Your task to perform on an android device: turn off javascript in the chrome app Image 0: 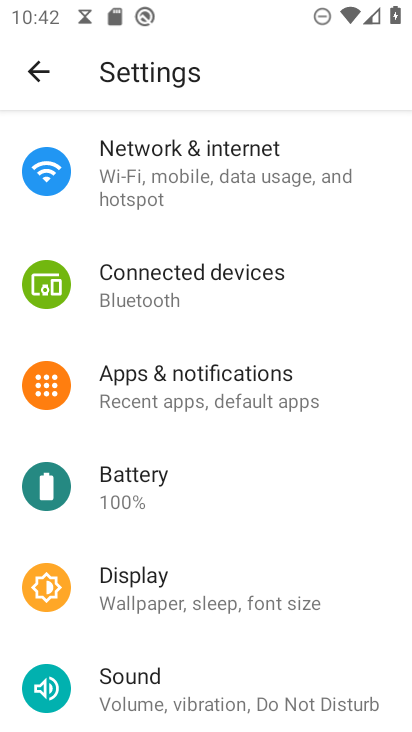
Step 0: press back button
Your task to perform on an android device: turn off javascript in the chrome app Image 1: 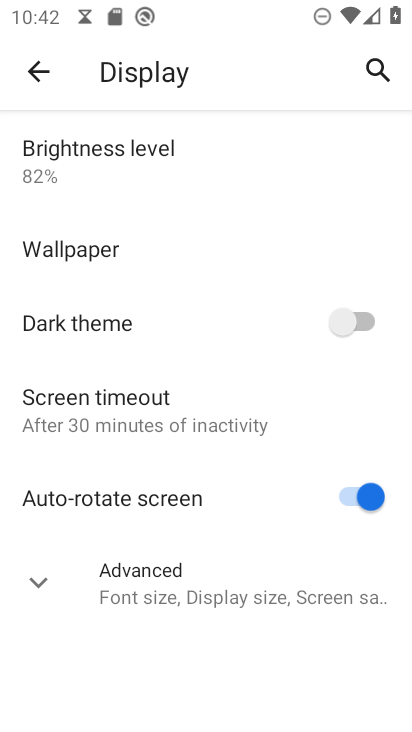
Step 1: press back button
Your task to perform on an android device: turn off javascript in the chrome app Image 2: 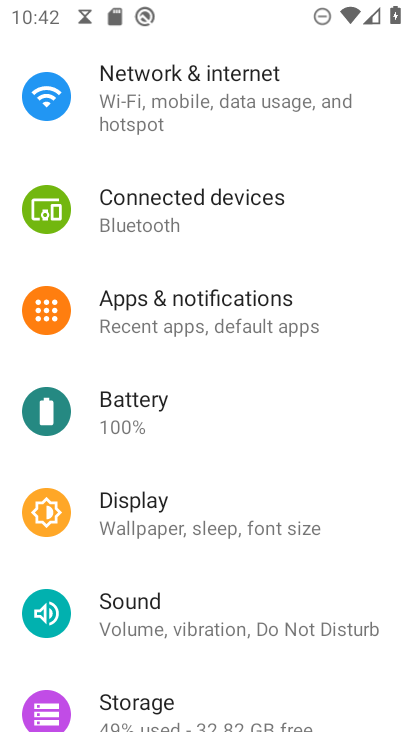
Step 2: press back button
Your task to perform on an android device: turn off javascript in the chrome app Image 3: 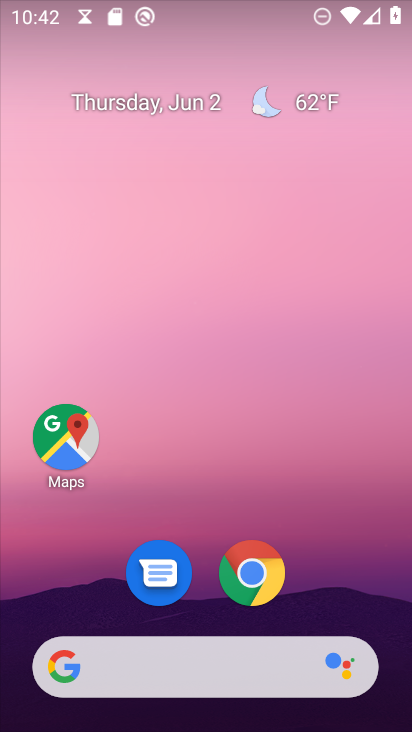
Step 3: click (250, 571)
Your task to perform on an android device: turn off javascript in the chrome app Image 4: 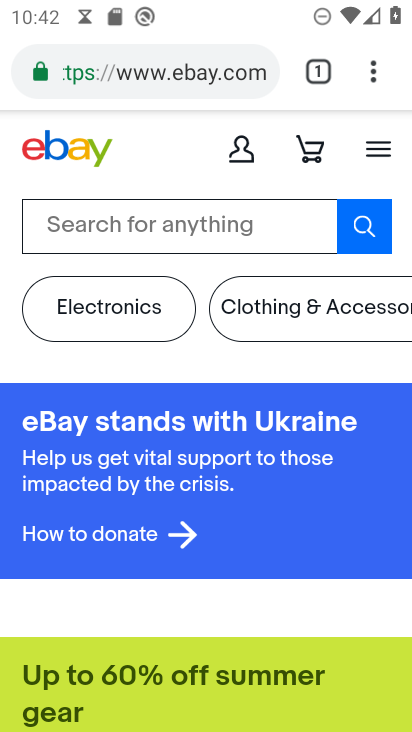
Step 4: click (373, 73)
Your task to perform on an android device: turn off javascript in the chrome app Image 5: 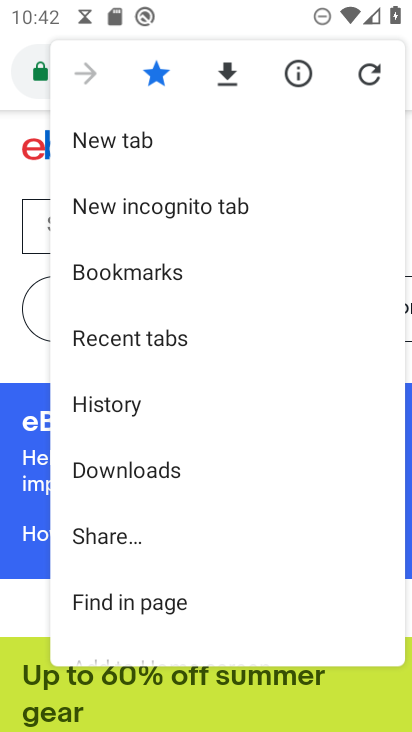
Step 5: drag from (126, 500) to (144, 395)
Your task to perform on an android device: turn off javascript in the chrome app Image 6: 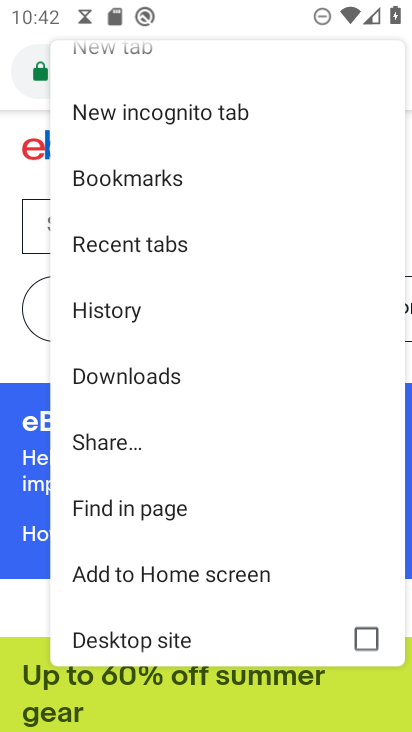
Step 6: drag from (138, 477) to (177, 384)
Your task to perform on an android device: turn off javascript in the chrome app Image 7: 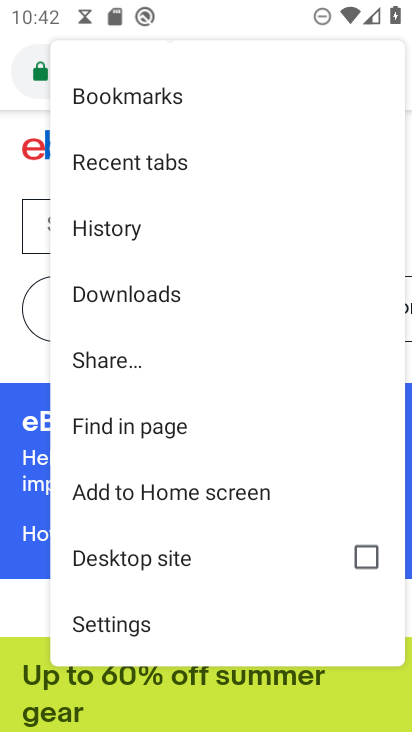
Step 7: drag from (133, 457) to (175, 378)
Your task to perform on an android device: turn off javascript in the chrome app Image 8: 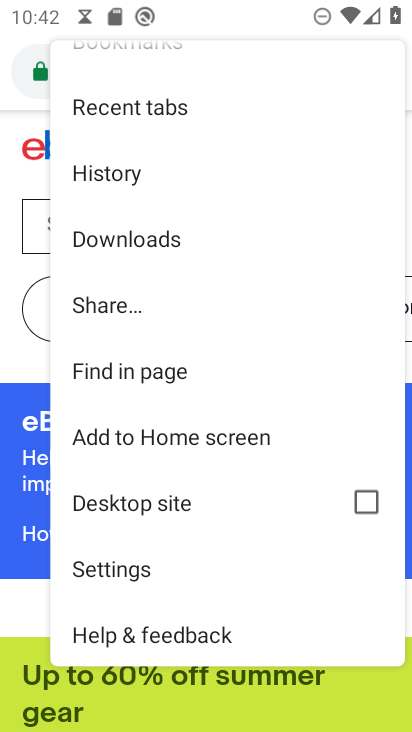
Step 8: drag from (124, 529) to (189, 423)
Your task to perform on an android device: turn off javascript in the chrome app Image 9: 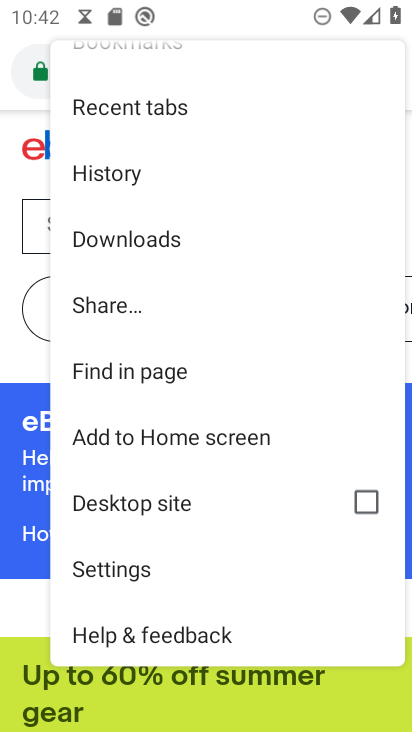
Step 9: click (147, 574)
Your task to perform on an android device: turn off javascript in the chrome app Image 10: 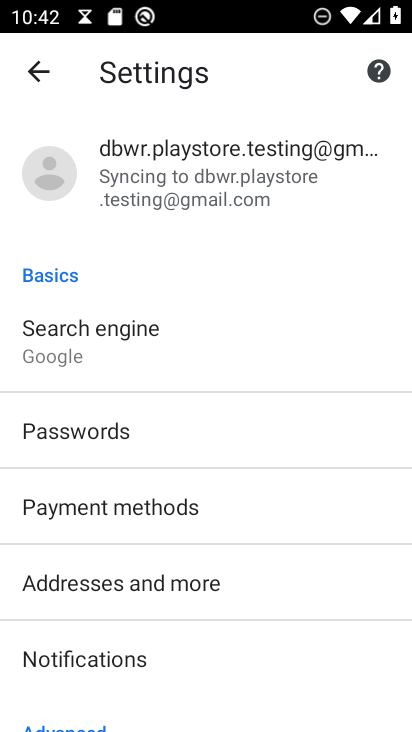
Step 10: drag from (183, 568) to (212, 469)
Your task to perform on an android device: turn off javascript in the chrome app Image 11: 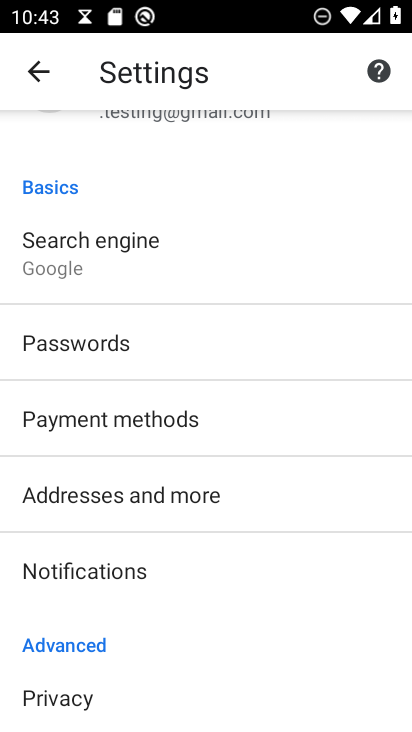
Step 11: drag from (112, 606) to (135, 476)
Your task to perform on an android device: turn off javascript in the chrome app Image 12: 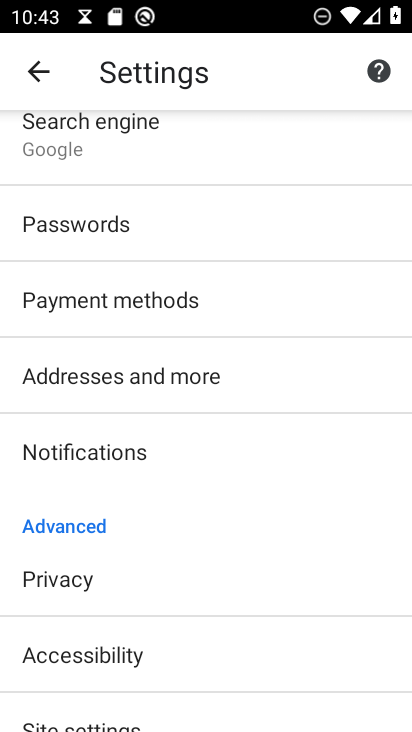
Step 12: drag from (145, 585) to (179, 462)
Your task to perform on an android device: turn off javascript in the chrome app Image 13: 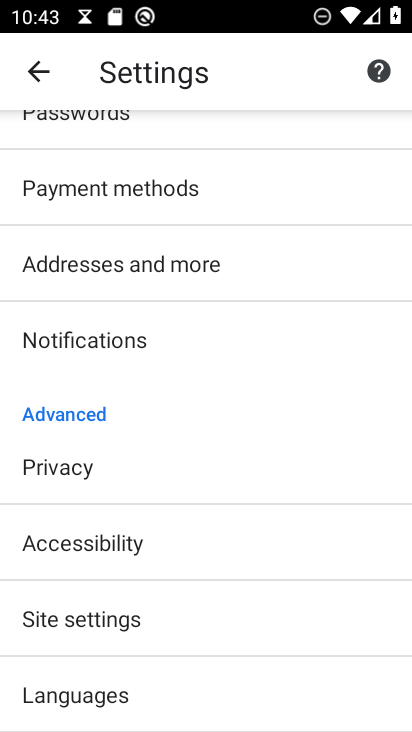
Step 13: drag from (175, 558) to (217, 496)
Your task to perform on an android device: turn off javascript in the chrome app Image 14: 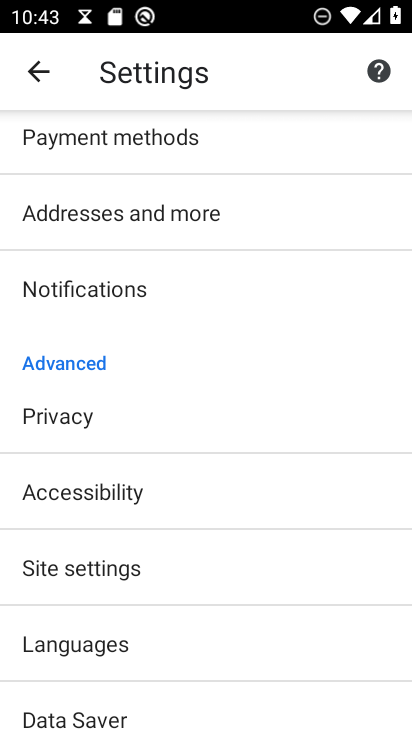
Step 14: drag from (180, 660) to (240, 527)
Your task to perform on an android device: turn off javascript in the chrome app Image 15: 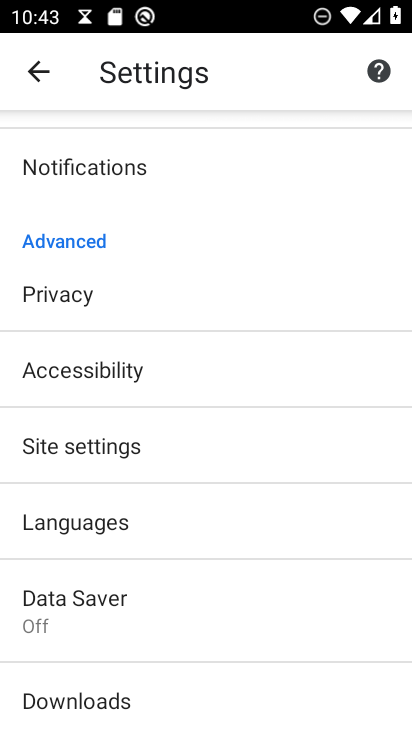
Step 15: click (106, 464)
Your task to perform on an android device: turn off javascript in the chrome app Image 16: 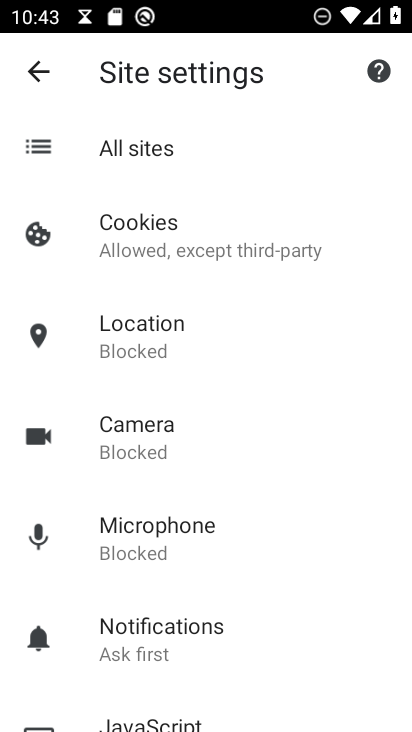
Step 16: drag from (160, 495) to (204, 382)
Your task to perform on an android device: turn off javascript in the chrome app Image 17: 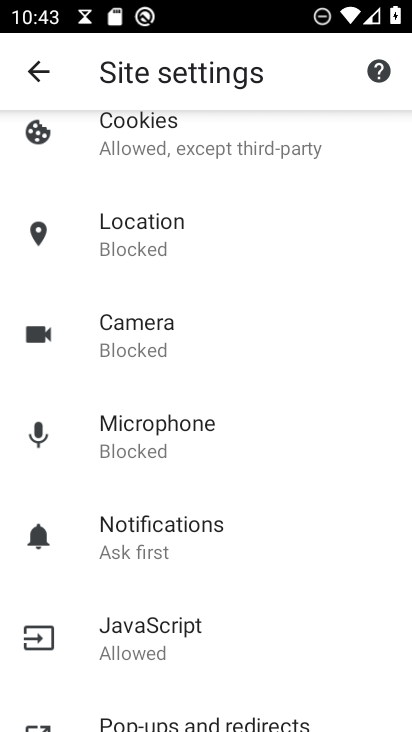
Step 17: drag from (166, 487) to (209, 398)
Your task to perform on an android device: turn off javascript in the chrome app Image 18: 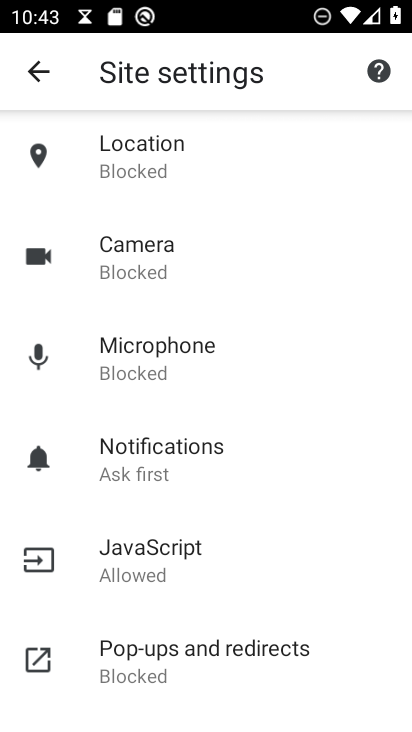
Step 18: click (151, 549)
Your task to perform on an android device: turn off javascript in the chrome app Image 19: 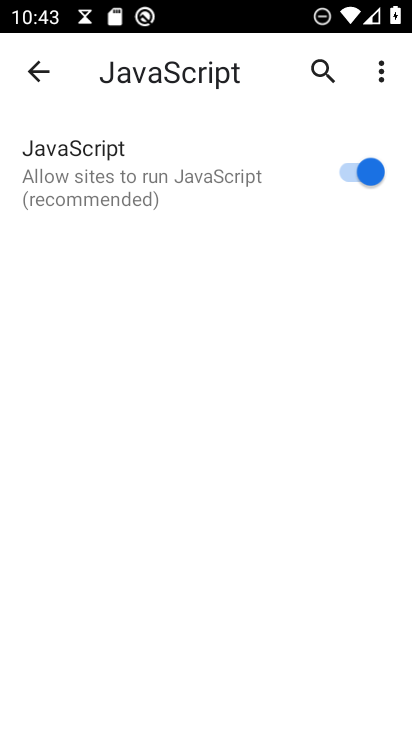
Step 19: click (356, 167)
Your task to perform on an android device: turn off javascript in the chrome app Image 20: 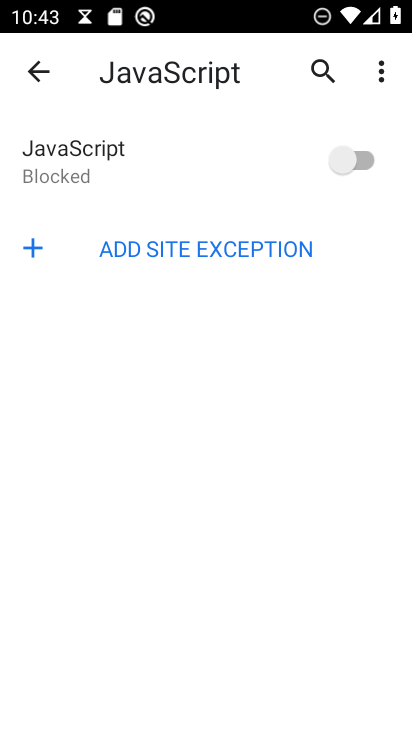
Step 20: task complete